Your task to perform on an android device: Search for "apple airpods" on ebay.com, select the first entry, add it to the cart, then select checkout. Image 0: 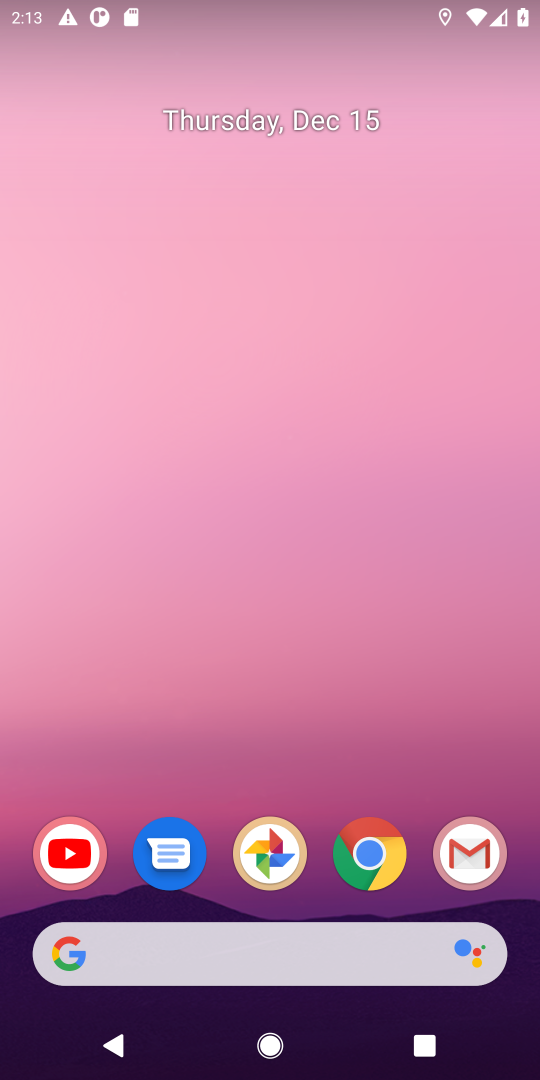
Step 0: drag from (293, 934) to (259, 131)
Your task to perform on an android device: Search for "apple airpods" on ebay.com, select the first entry, add it to the cart, then select checkout. Image 1: 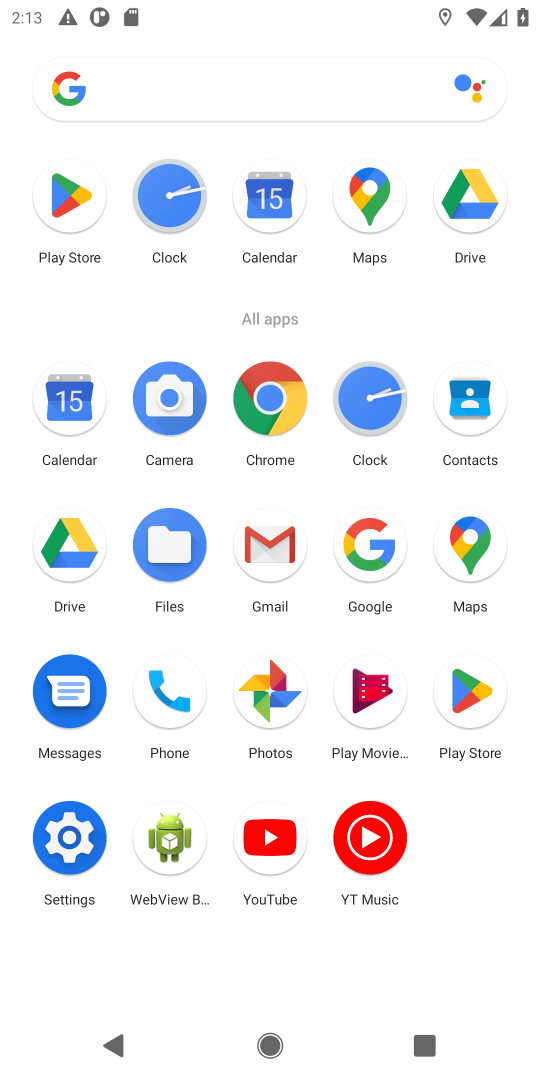
Step 1: click (386, 555)
Your task to perform on an android device: Search for "apple airpods" on ebay.com, select the first entry, add it to the cart, then select checkout. Image 2: 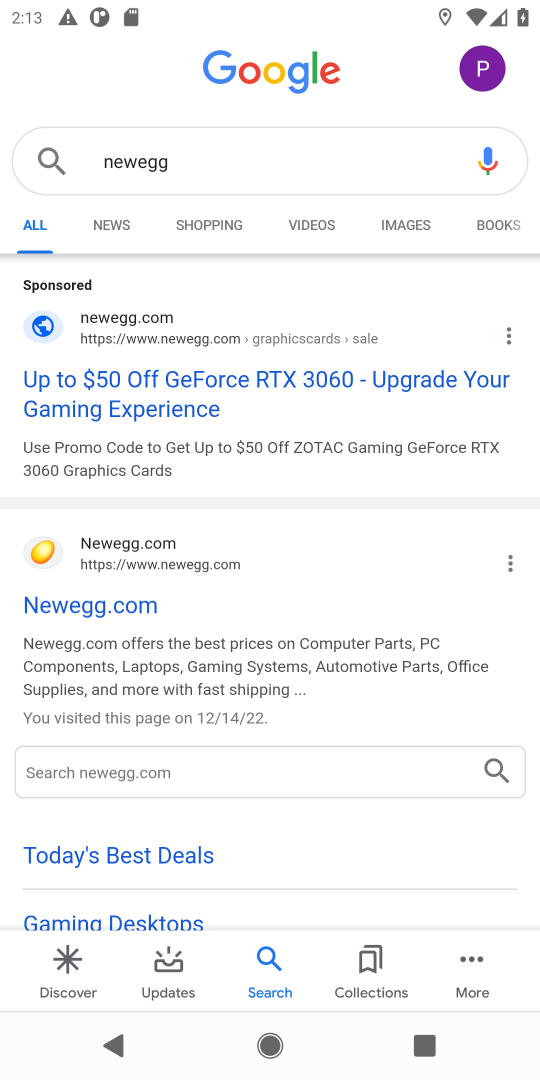
Step 2: click (129, 156)
Your task to perform on an android device: Search for "apple airpods" on ebay.com, select the first entry, add it to the cart, then select checkout. Image 3: 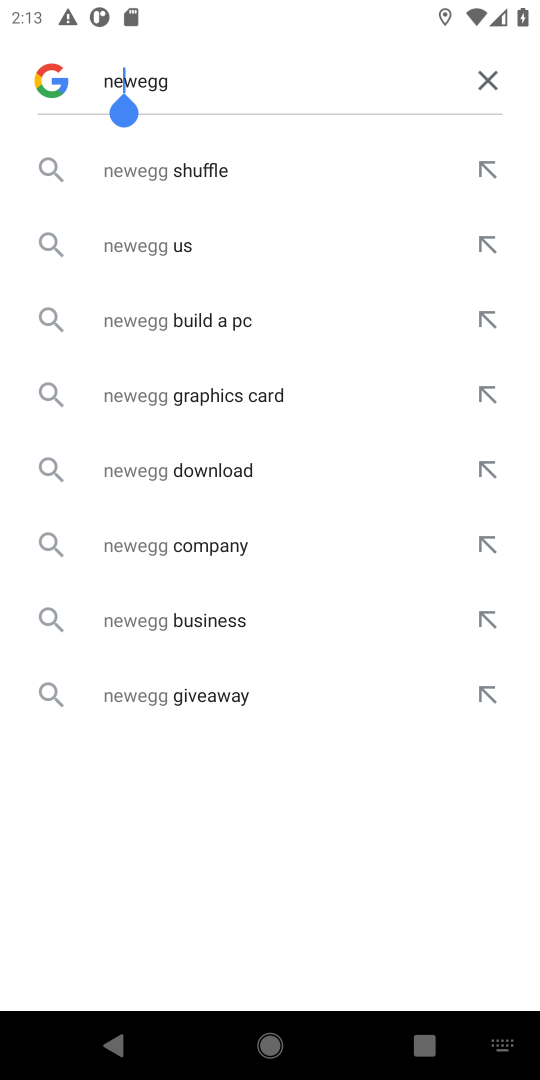
Step 3: click (489, 79)
Your task to perform on an android device: Search for "apple airpods" on ebay.com, select the first entry, add it to the cart, then select checkout. Image 4: 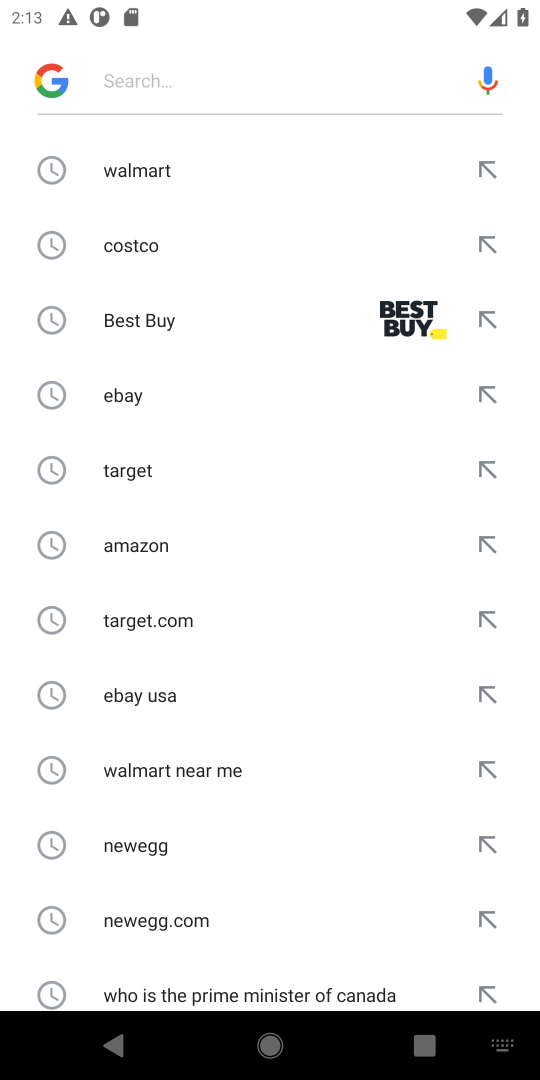
Step 4: click (119, 391)
Your task to perform on an android device: Search for "apple airpods" on ebay.com, select the first entry, add it to the cart, then select checkout. Image 5: 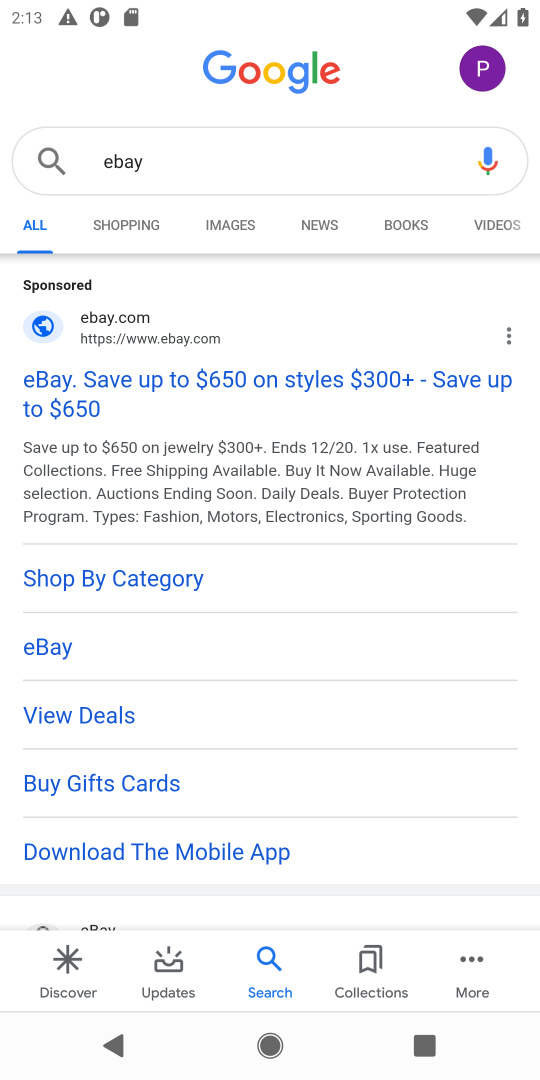
Step 5: drag from (152, 787) to (164, 306)
Your task to perform on an android device: Search for "apple airpods" on ebay.com, select the first entry, add it to the cart, then select checkout. Image 6: 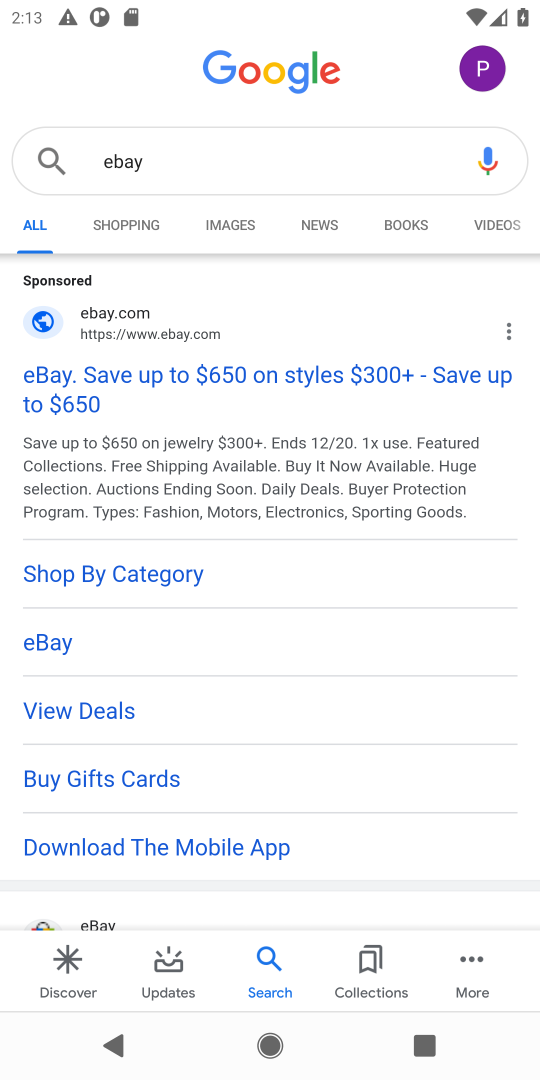
Step 6: drag from (235, 862) to (236, 447)
Your task to perform on an android device: Search for "apple airpods" on ebay.com, select the first entry, add it to the cart, then select checkout. Image 7: 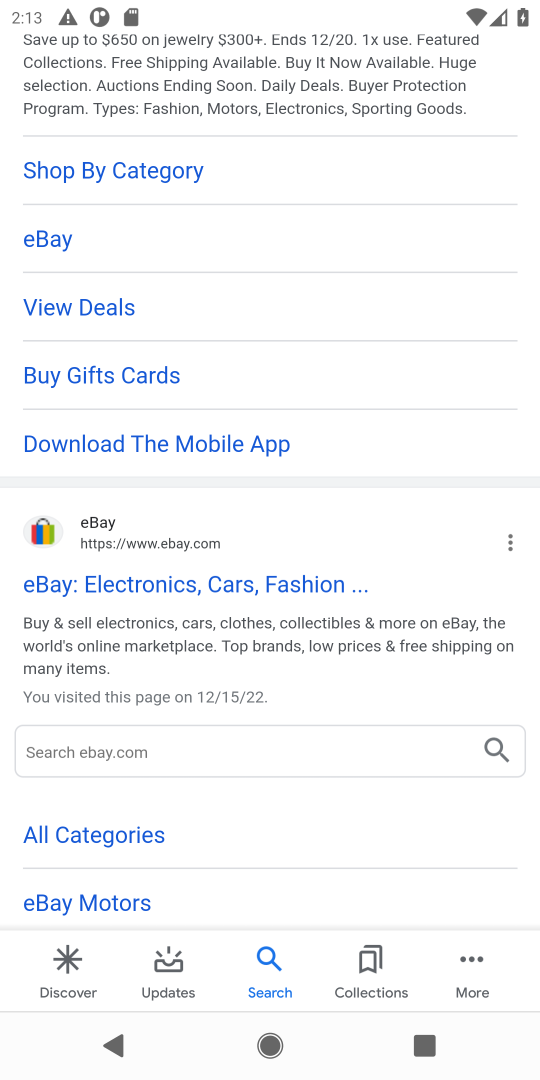
Step 7: click (120, 579)
Your task to perform on an android device: Search for "apple airpods" on ebay.com, select the first entry, add it to the cart, then select checkout. Image 8: 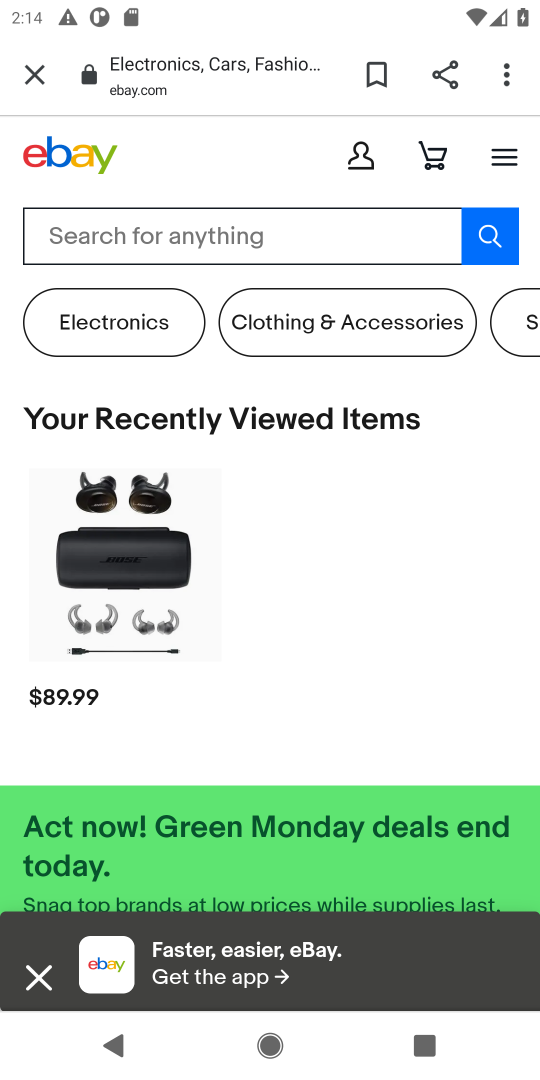
Step 8: click (136, 244)
Your task to perform on an android device: Search for "apple airpods" on ebay.com, select the first entry, add it to the cart, then select checkout. Image 9: 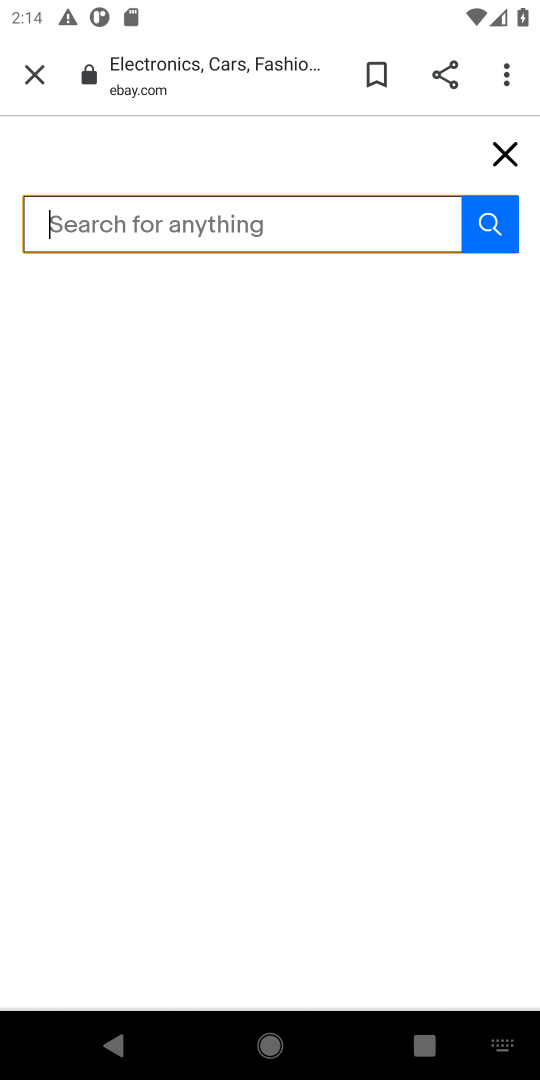
Step 9: type "apple airpods"
Your task to perform on an android device: Search for "apple airpods" on ebay.com, select the first entry, add it to the cart, then select checkout. Image 10: 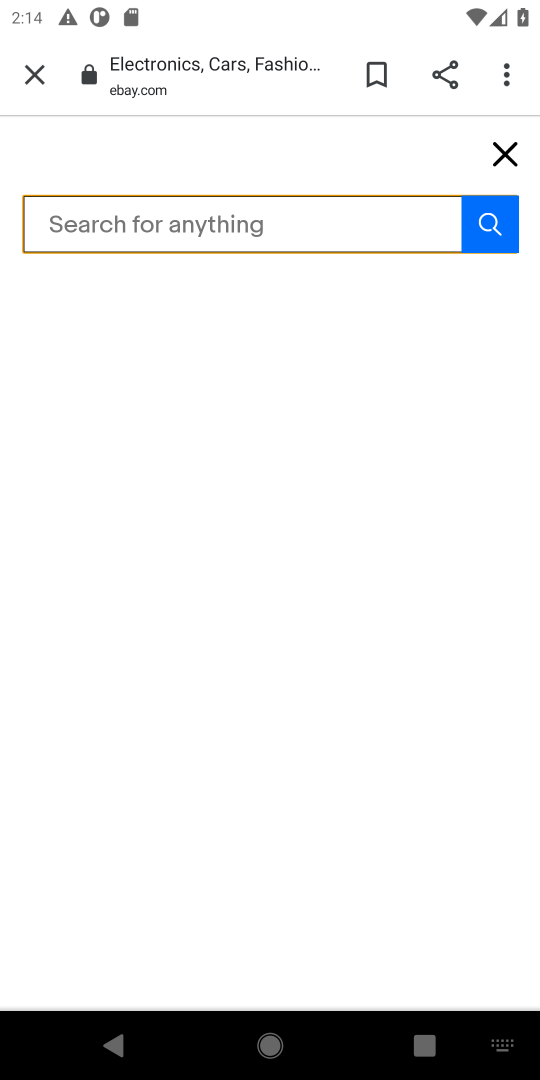
Step 10: click (492, 221)
Your task to perform on an android device: Search for "apple airpods" on ebay.com, select the first entry, add it to the cart, then select checkout. Image 11: 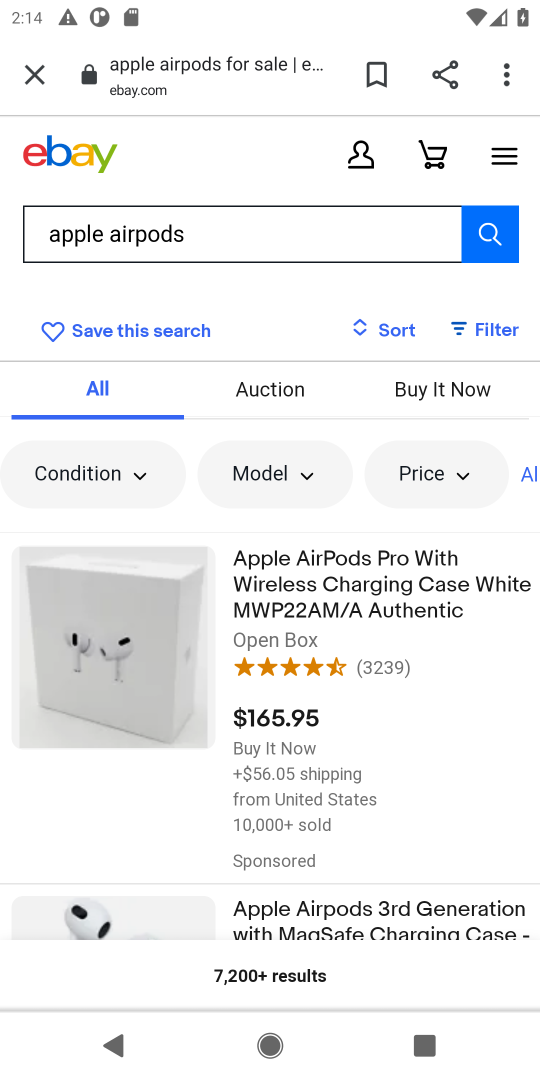
Step 11: click (287, 586)
Your task to perform on an android device: Search for "apple airpods" on ebay.com, select the first entry, add it to the cart, then select checkout. Image 12: 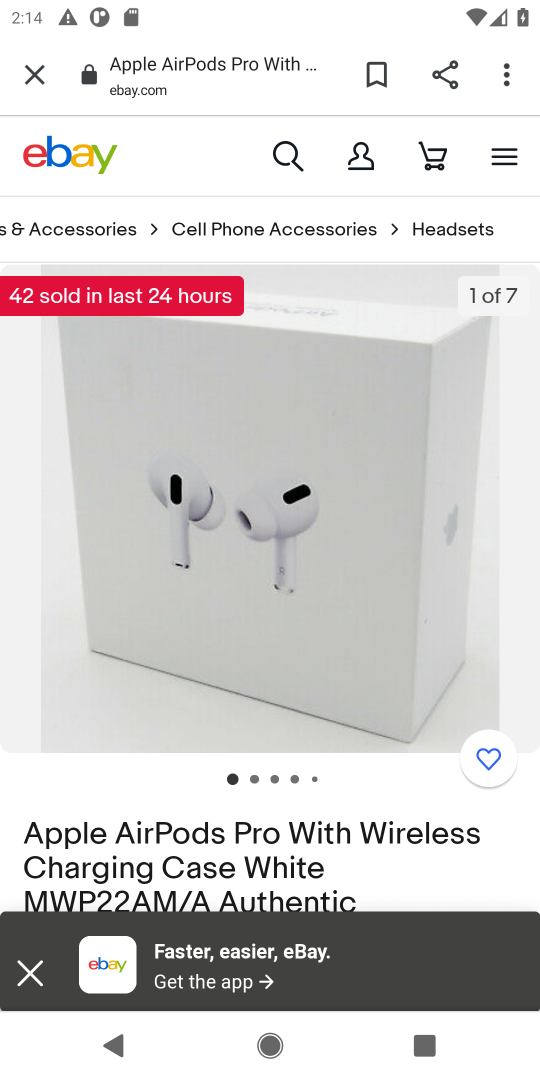
Step 12: drag from (257, 848) to (257, 405)
Your task to perform on an android device: Search for "apple airpods" on ebay.com, select the first entry, add it to the cart, then select checkout. Image 13: 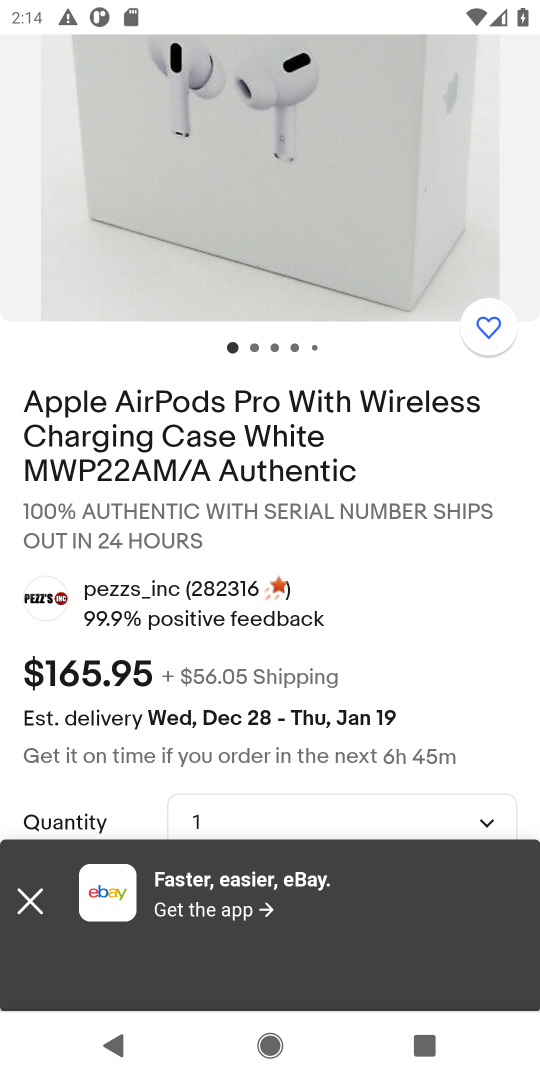
Step 13: drag from (320, 726) to (306, 301)
Your task to perform on an android device: Search for "apple airpods" on ebay.com, select the first entry, add it to the cart, then select checkout. Image 14: 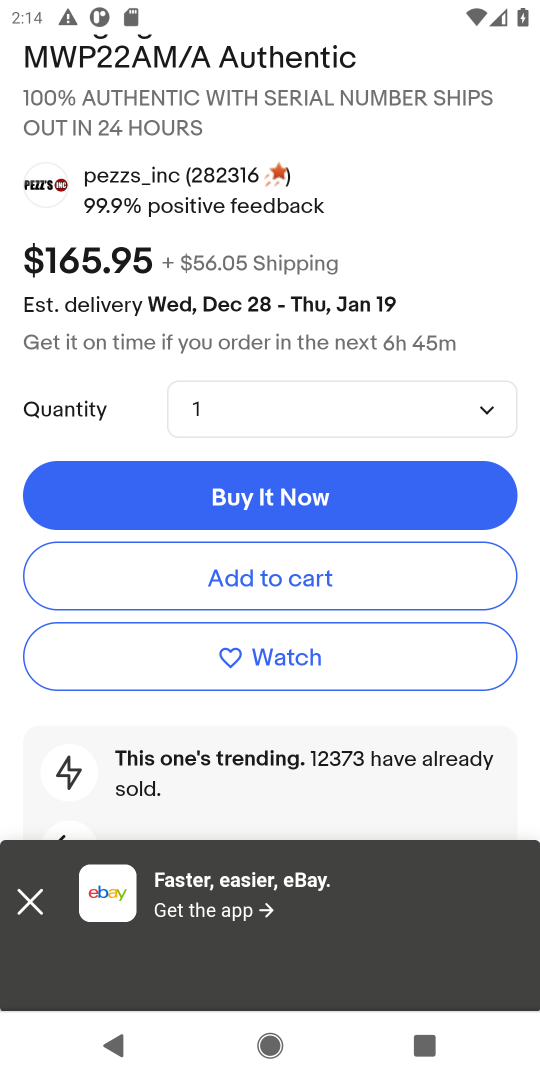
Step 14: click (321, 578)
Your task to perform on an android device: Search for "apple airpods" on ebay.com, select the first entry, add it to the cart, then select checkout. Image 15: 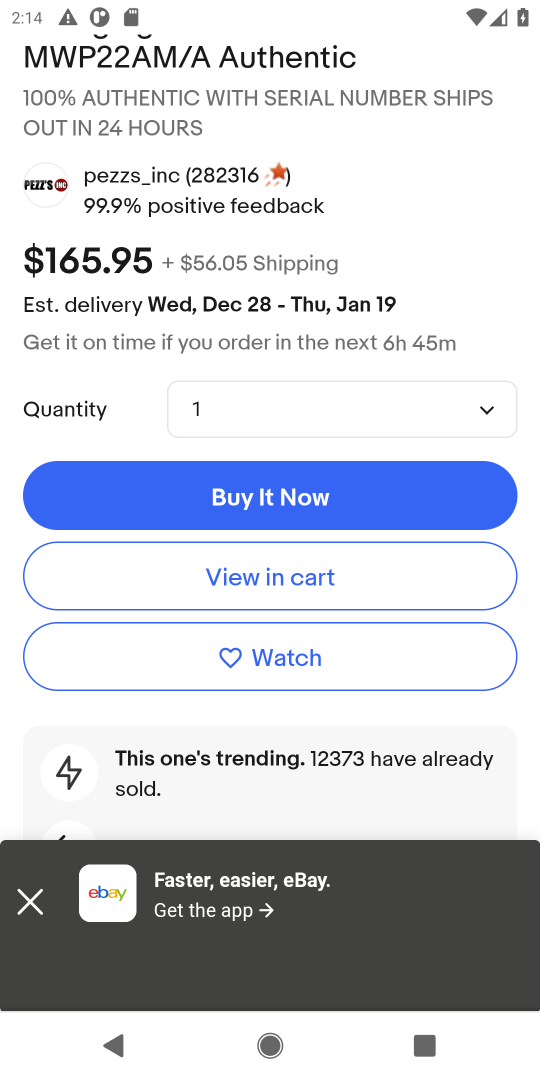
Step 15: click (321, 571)
Your task to perform on an android device: Search for "apple airpods" on ebay.com, select the first entry, add it to the cart, then select checkout. Image 16: 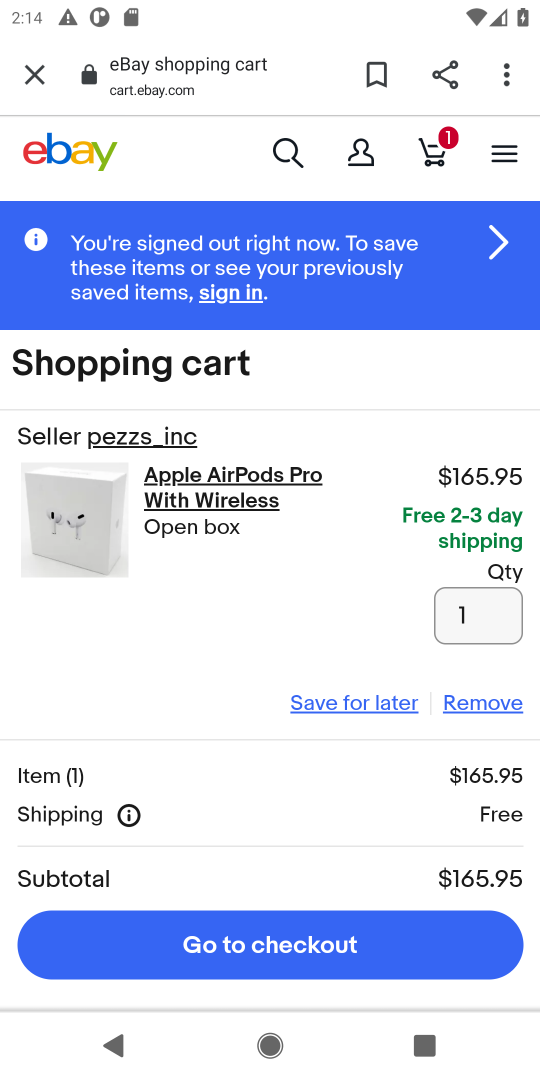
Step 16: click (252, 932)
Your task to perform on an android device: Search for "apple airpods" on ebay.com, select the first entry, add it to the cart, then select checkout. Image 17: 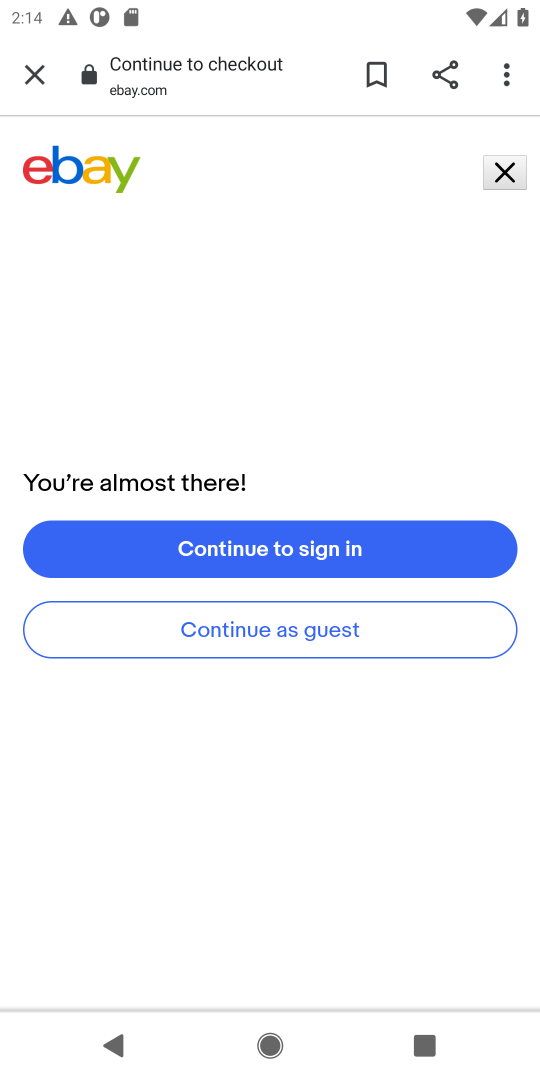
Step 17: task complete